Your task to perform on an android device: Go to Reddit.com Image 0: 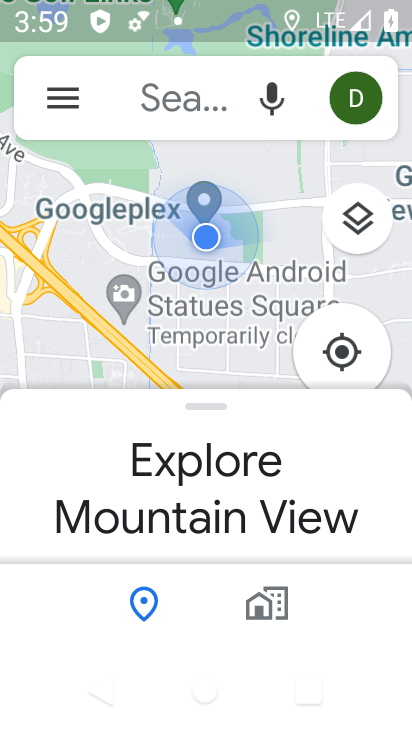
Step 0: press home button
Your task to perform on an android device: Go to Reddit.com Image 1: 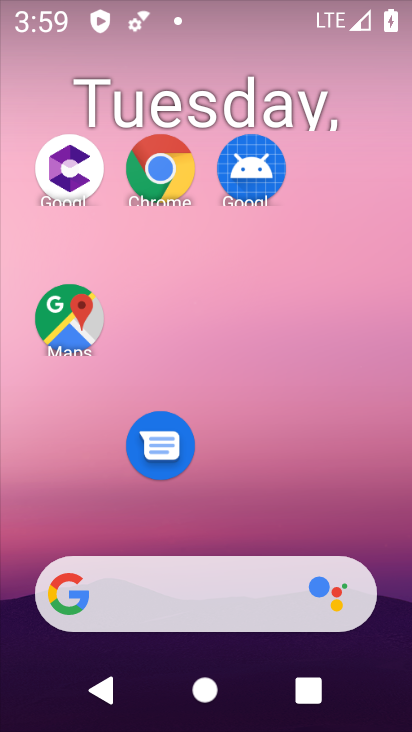
Step 1: drag from (291, 523) to (273, 12)
Your task to perform on an android device: Go to Reddit.com Image 2: 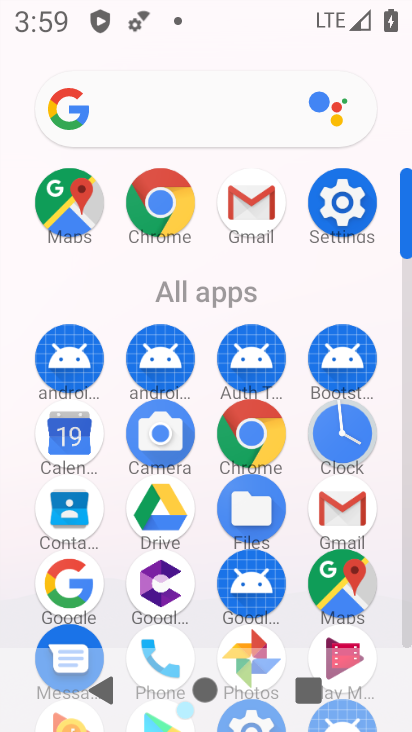
Step 2: click (165, 108)
Your task to perform on an android device: Go to Reddit.com Image 3: 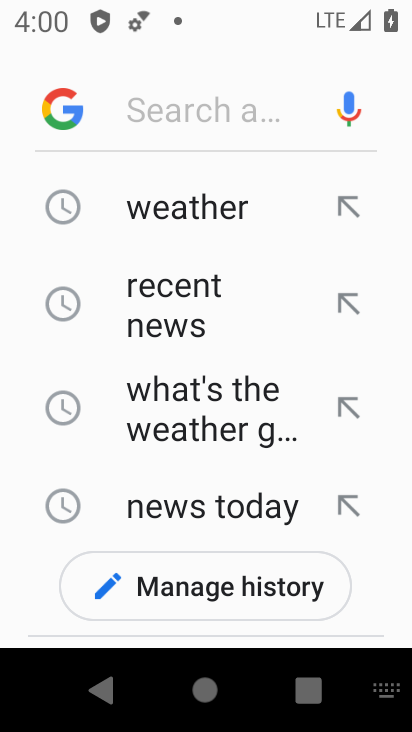
Step 3: type "Reddit.com"
Your task to perform on an android device: Go to Reddit.com Image 4: 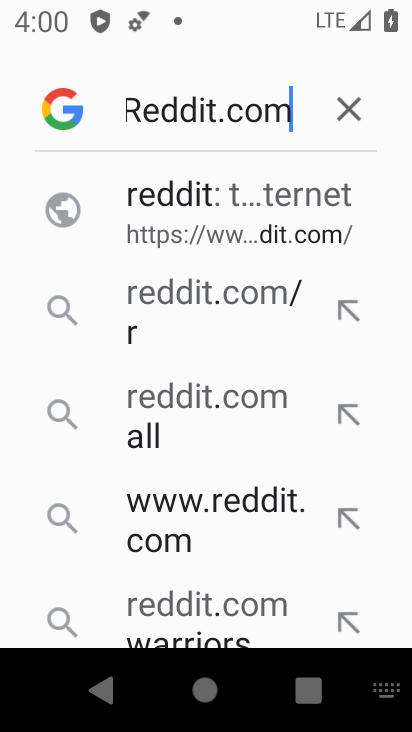
Step 4: click (203, 400)
Your task to perform on an android device: Go to Reddit.com Image 5: 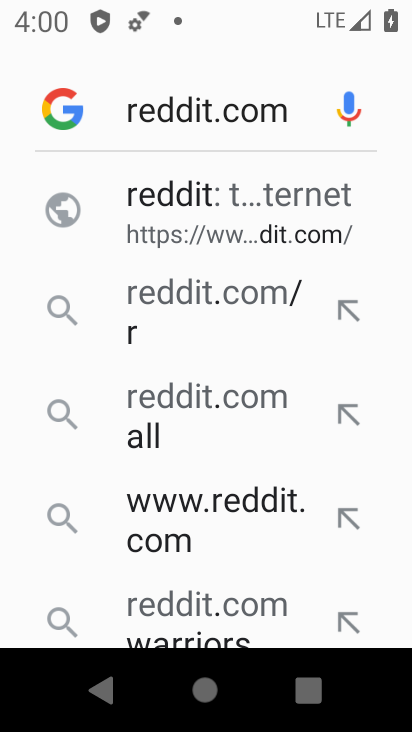
Step 5: click (203, 400)
Your task to perform on an android device: Go to Reddit.com Image 6: 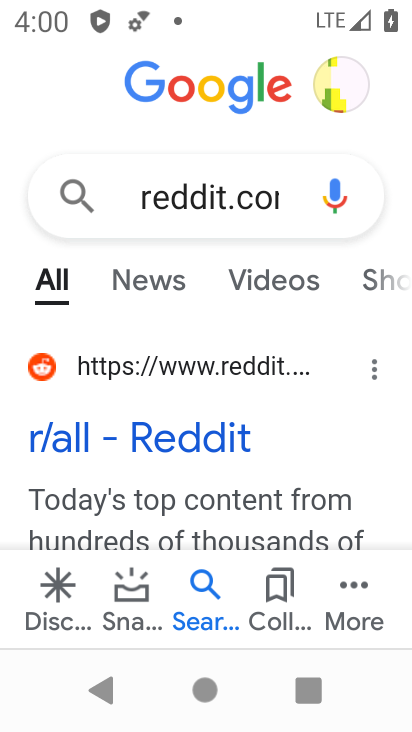
Step 6: task complete